Your task to perform on an android device: turn on priority inbox in the gmail app Image 0: 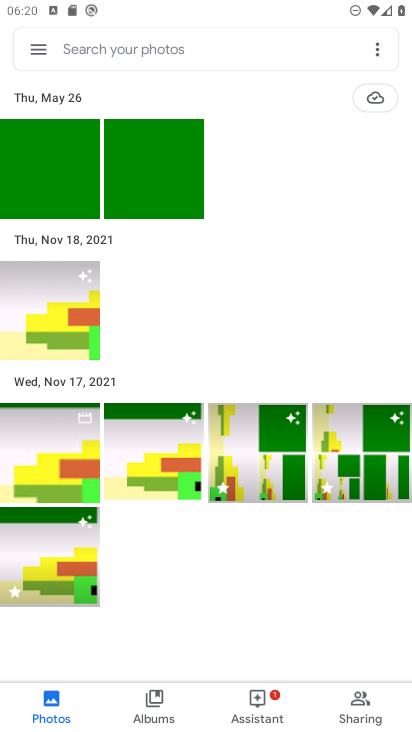
Step 0: press home button
Your task to perform on an android device: turn on priority inbox in the gmail app Image 1: 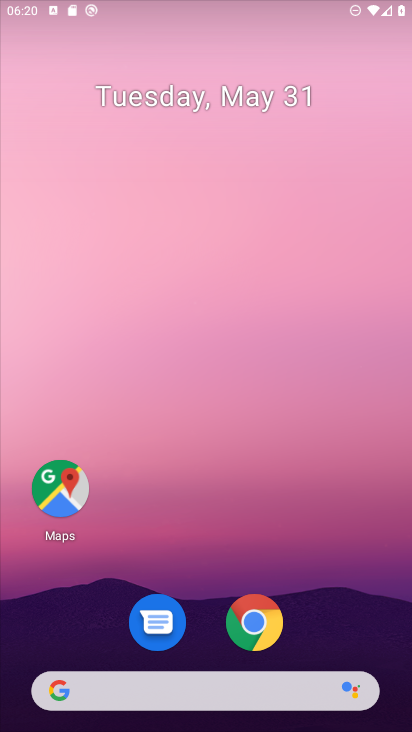
Step 1: drag from (282, 626) to (365, 4)
Your task to perform on an android device: turn on priority inbox in the gmail app Image 2: 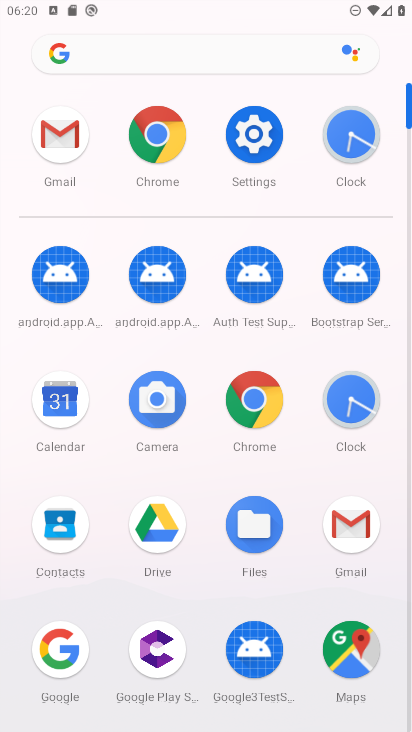
Step 2: click (333, 544)
Your task to perform on an android device: turn on priority inbox in the gmail app Image 3: 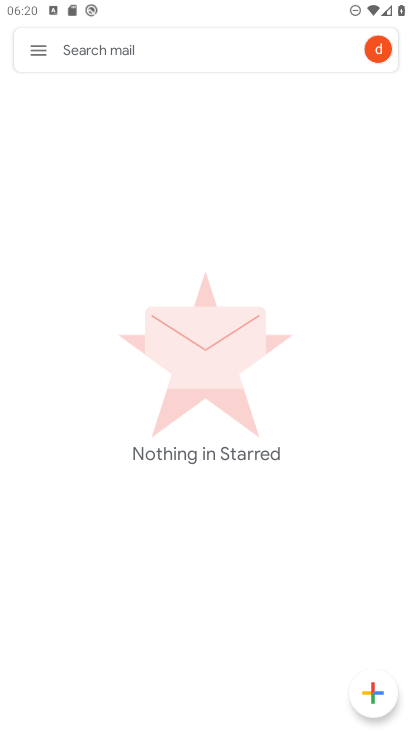
Step 3: click (43, 49)
Your task to perform on an android device: turn on priority inbox in the gmail app Image 4: 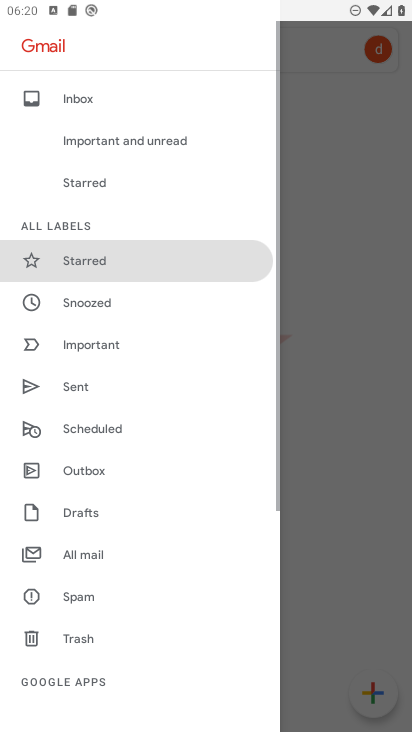
Step 4: drag from (205, 600) to (184, 58)
Your task to perform on an android device: turn on priority inbox in the gmail app Image 5: 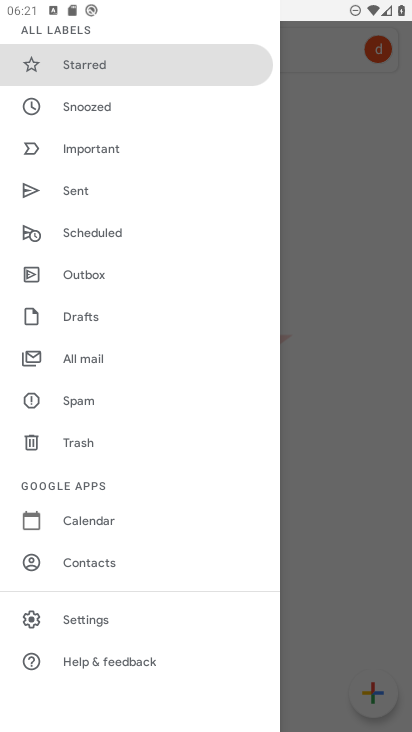
Step 5: click (97, 623)
Your task to perform on an android device: turn on priority inbox in the gmail app Image 6: 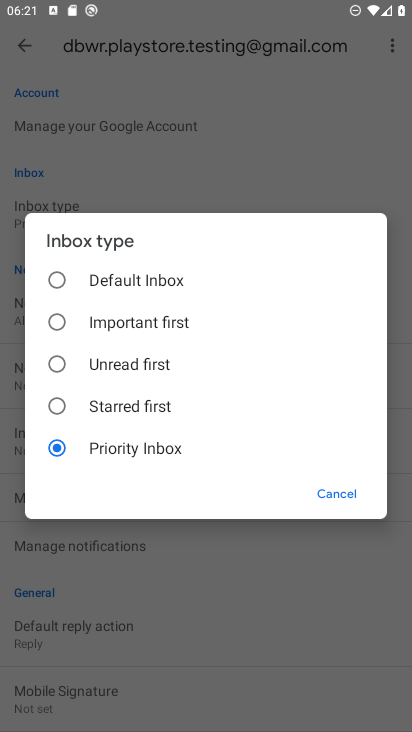
Step 6: task complete